Your task to perform on an android device: turn pop-ups off in chrome Image 0: 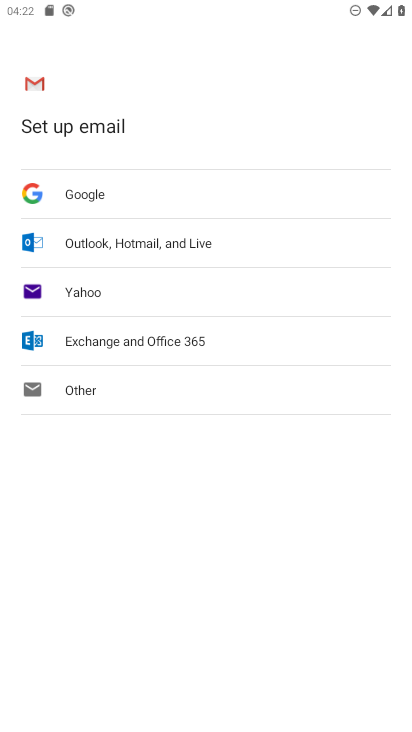
Step 0: press home button
Your task to perform on an android device: turn pop-ups off in chrome Image 1: 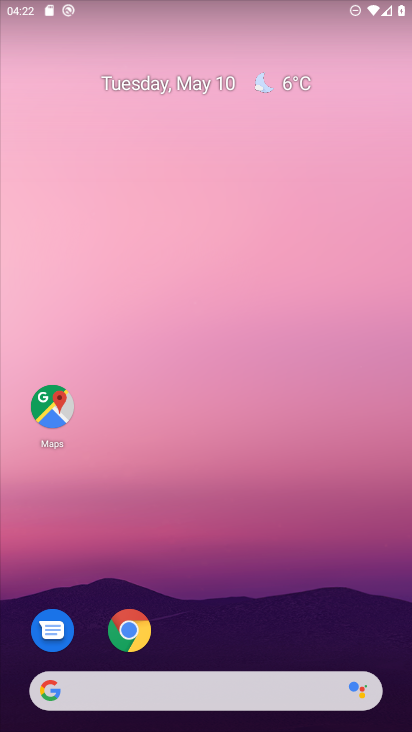
Step 1: click (133, 622)
Your task to perform on an android device: turn pop-ups off in chrome Image 2: 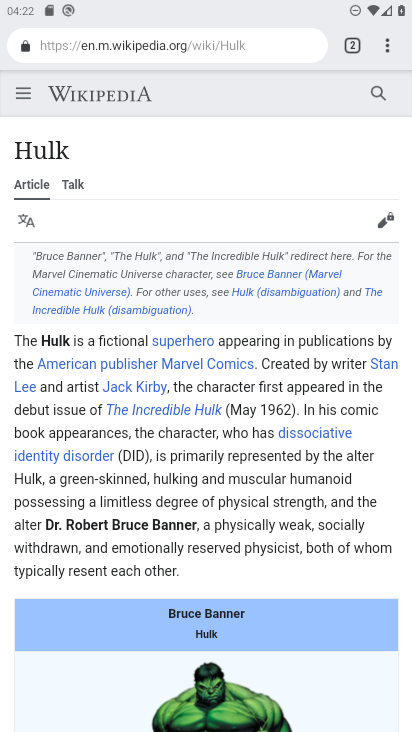
Step 2: click (376, 46)
Your task to perform on an android device: turn pop-ups off in chrome Image 3: 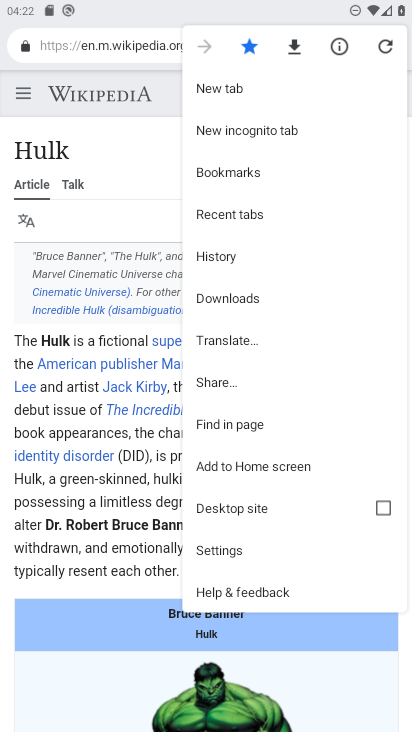
Step 3: click (242, 553)
Your task to perform on an android device: turn pop-ups off in chrome Image 4: 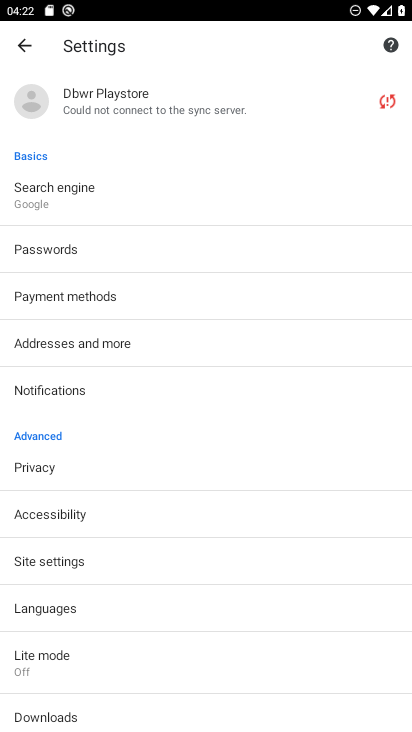
Step 4: drag from (162, 695) to (260, 298)
Your task to perform on an android device: turn pop-ups off in chrome Image 5: 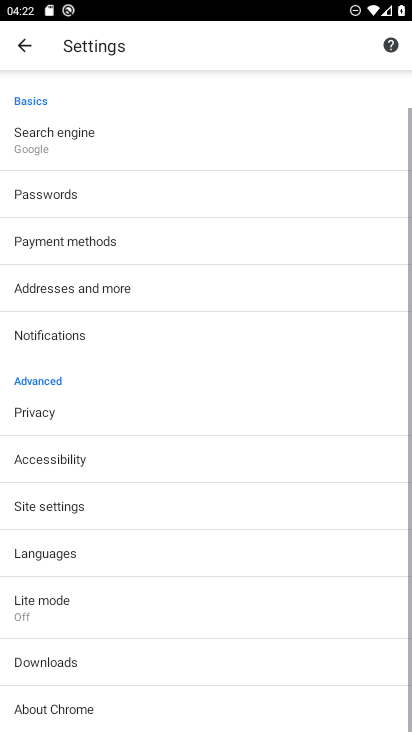
Step 5: click (87, 508)
Your task to perform on an android device: turn pop-ups off in chrome Image 6: 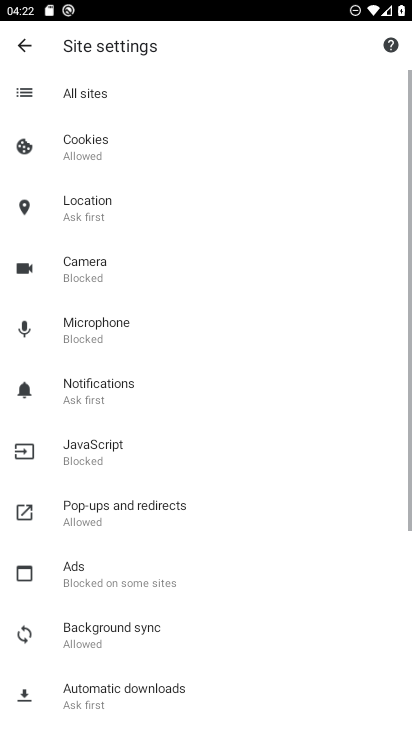
Step 6: click (87, 508)
Your task to perform on an android device: turn pop-ups off in chrome Image 7: 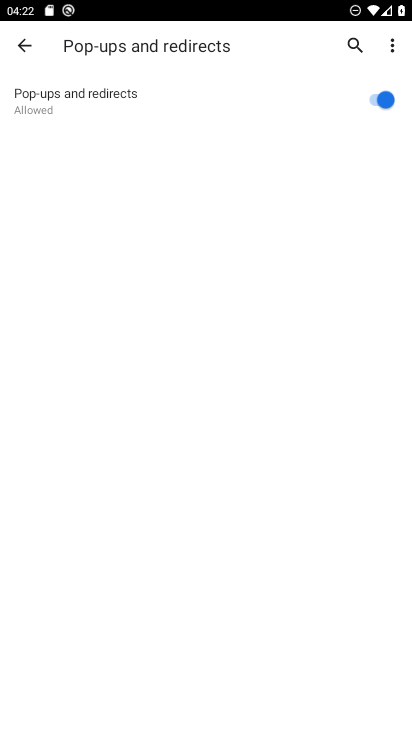
Step 7: click (377, 94)
Your task to perform on an android device: turn pop-ups off in chrome Image 8: 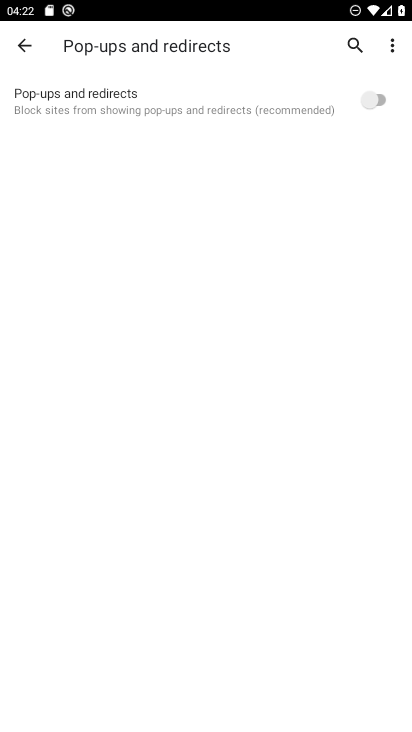
Step 8: task complete